Your task to perform on an android device: Open maps Image 0: 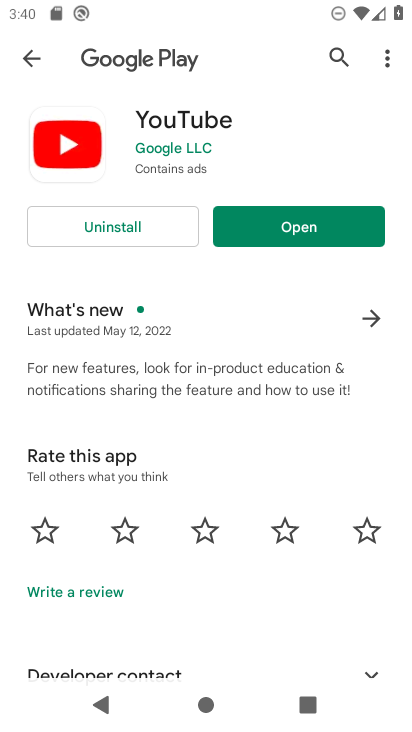
Step 0: press home button
Your task to perform on an android device: Open maps Image 1: 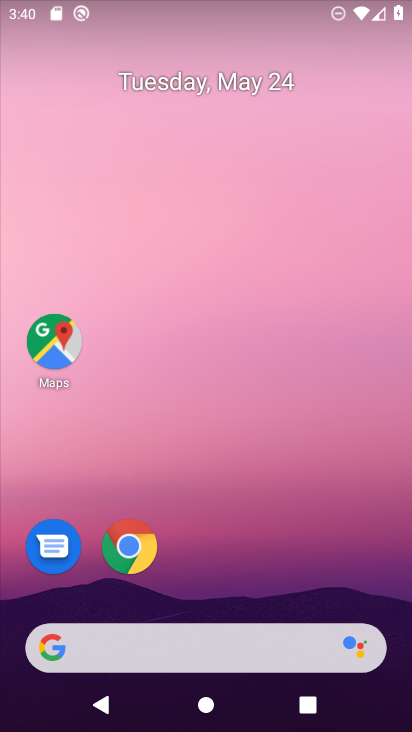
Step 1: click (47, 336)
Your task to perform on an android device: Open maps Image 2: 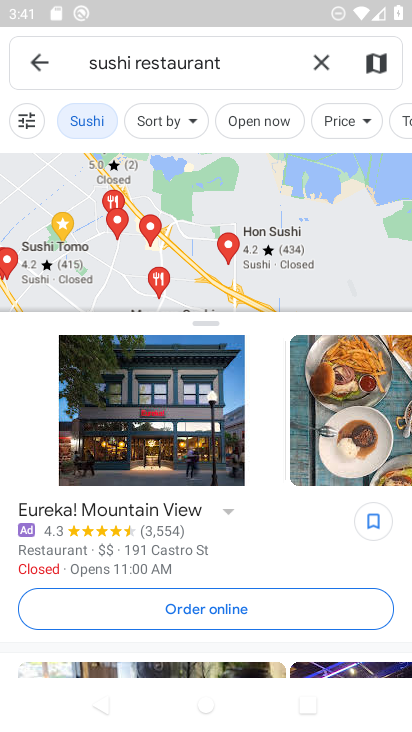
Step 2: task complete